Your task to perform on an android device: Open Google Chrome and open the bookmarks view Image 0: 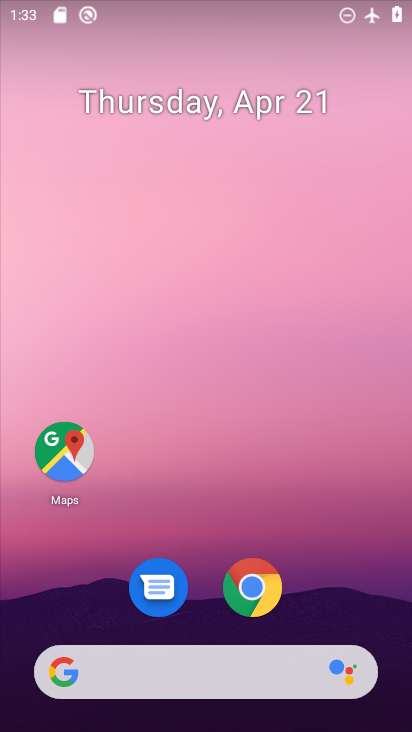
Step 0: click (245, 597)
Your task to perform on an android device: Open Google Chrome and open the bookmarks view Image 1: 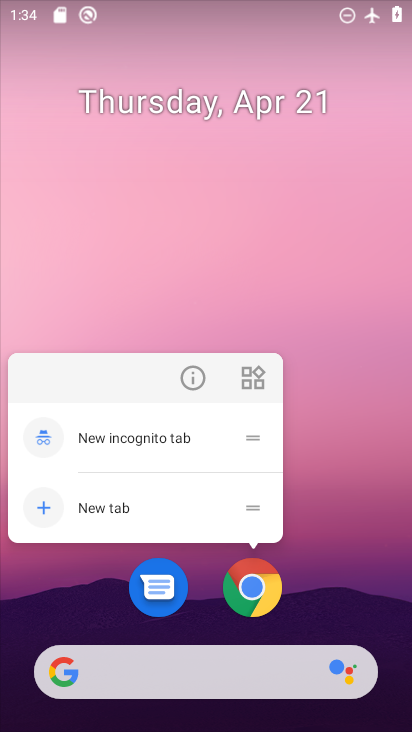
Step 1: click (259, 587)
Your task to perform on an android device: Open Google Chrome and open the bookmarks view Image 2: 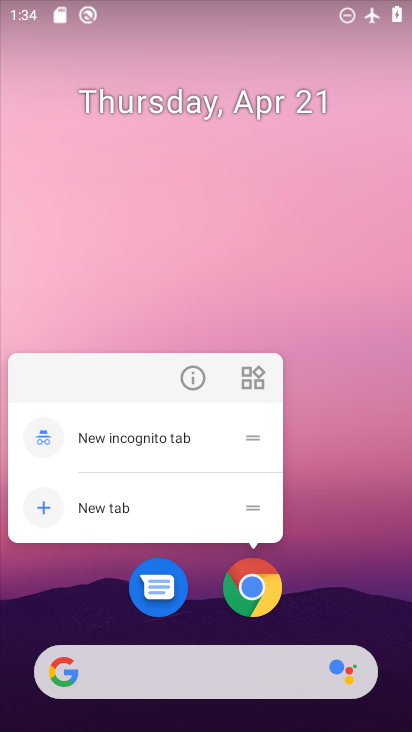
Step 2: click (269, 587)
Your task to perform on an android device: Open Google Chrome and open the bookmarks view Image 3: 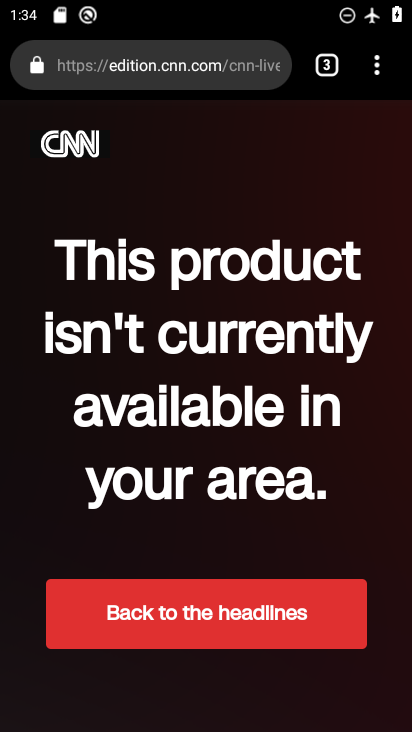
Step 3: click (375, 61)
Your task to perform on an android device: Open Google Chrome and open the bookmarks view Image 4: 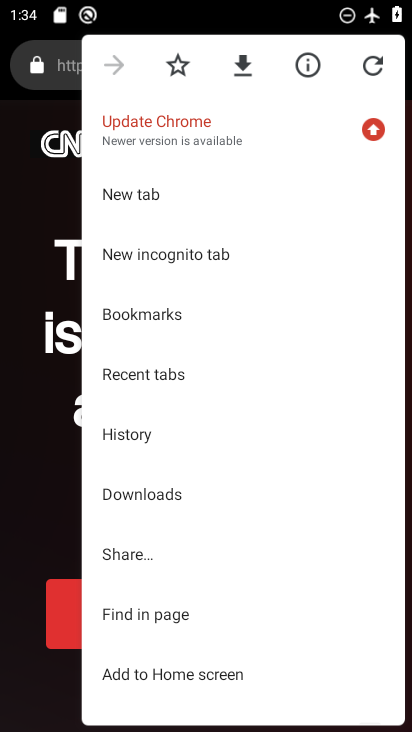
Step 4: click (136, 314)
Your task to perform on an android device: Open Google Chrome and open the bookmarks view Image 5: 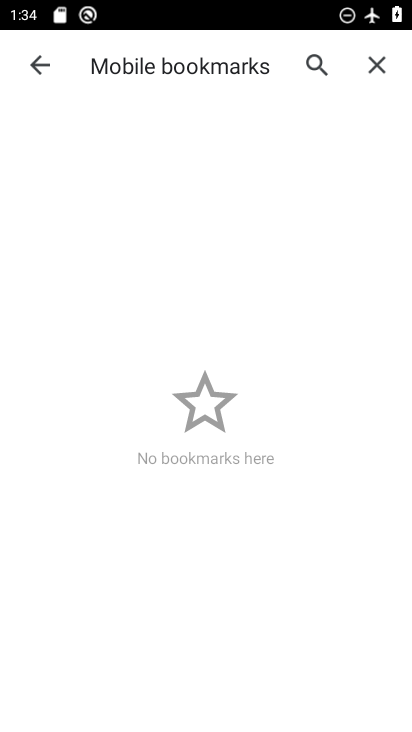
Step 5: task complete